Your task to perform on an android device: change text size in settings app Image 0: 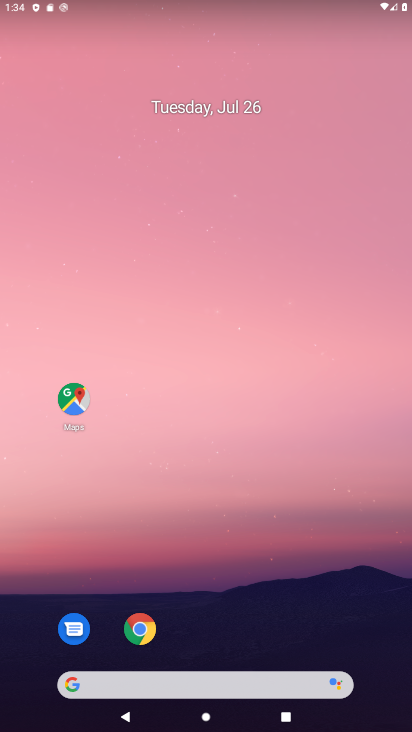
Step 0: drag from (379, 651) to (329, 244)
Your task to perform on an android device: change text size in settings app Image 1: 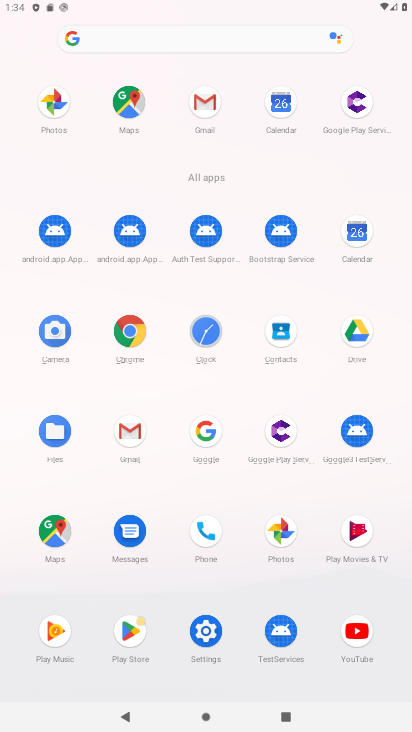
Step 1: click (202, 632)
Your task to perform on an android device: change text size in settings app Image 2: 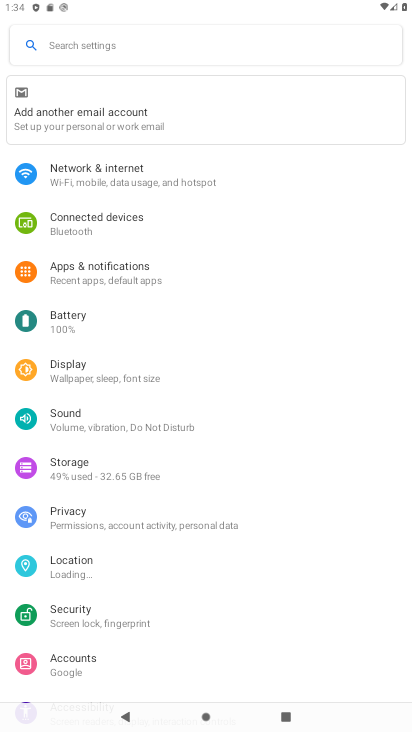
Step 2: click (80, 371)
Your task to perform on an android device: change text size in settings app Image 3: 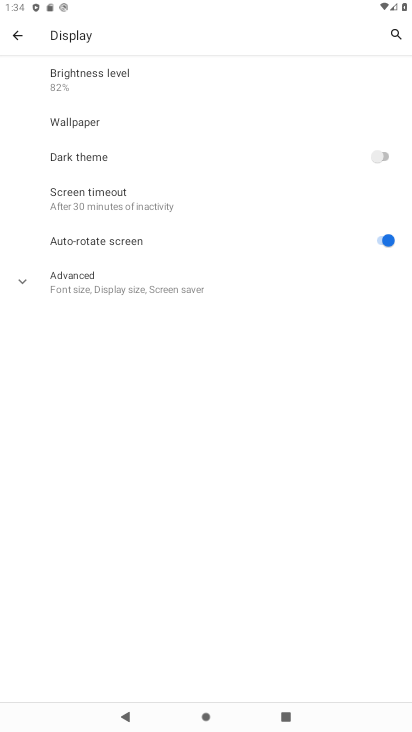
Step 3: click (26, 285)
Your task to perform on an android device: change text size in settings app Image 4: 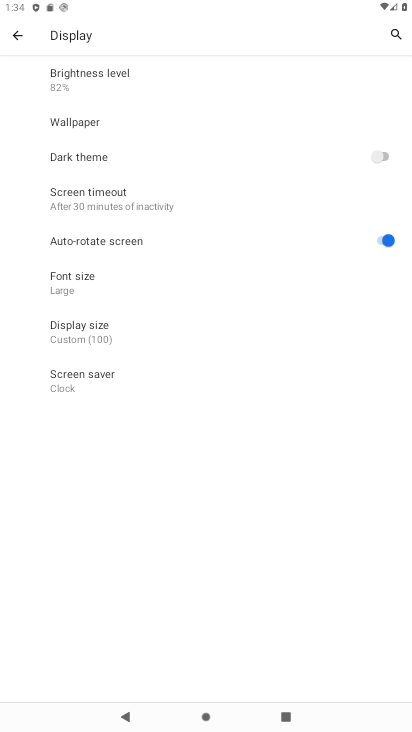
Step 4: click (72, 276)
Your task to perform on an android device: change text size in settings app Image 5: 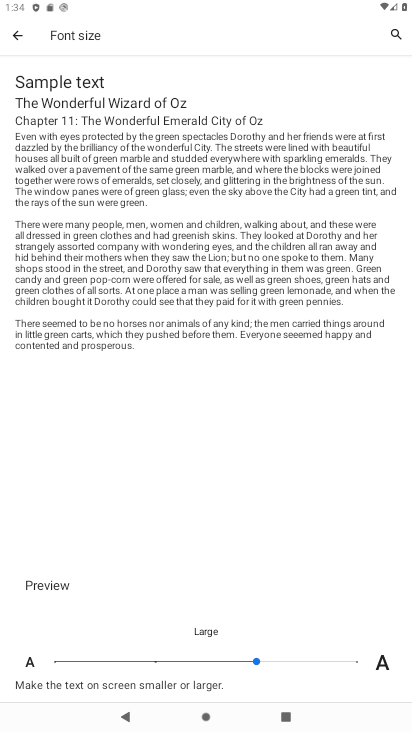
Step 5: click (354, 661)
Your task to perform on an android device: change text size in settings app Image 6: 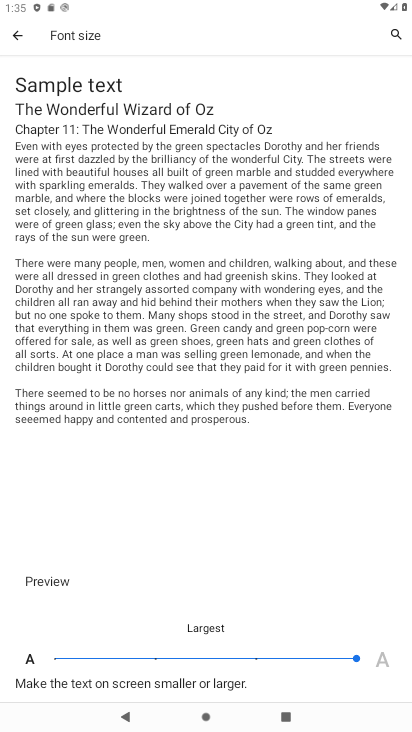
Step 6: task complete